Your task to perform on an android device: toggle improve location accuracy Image 0: 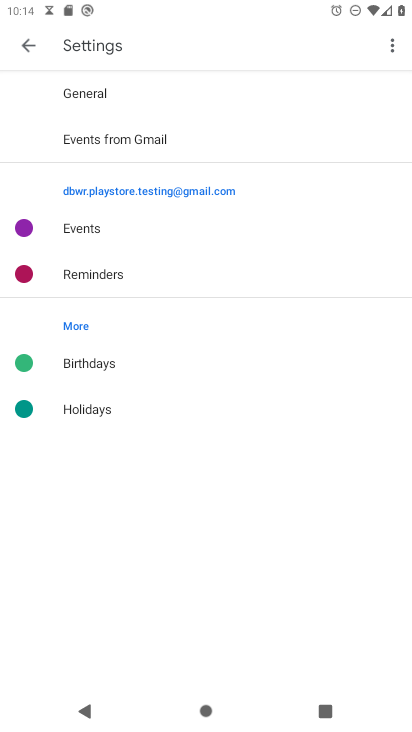
Step 0: press back button
Your task to perform on an android device: toggle improve location accuracy Image 1: 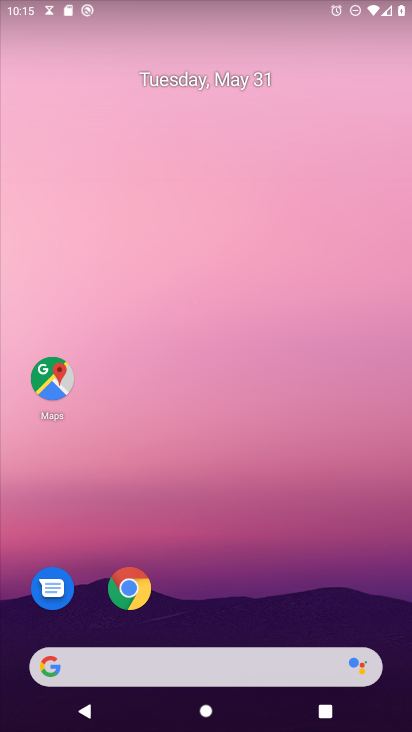
Step 1: drag from (277, 574) to (223, 64)
Your task to perform on an android device: toggle improve location accuracy Image 2: 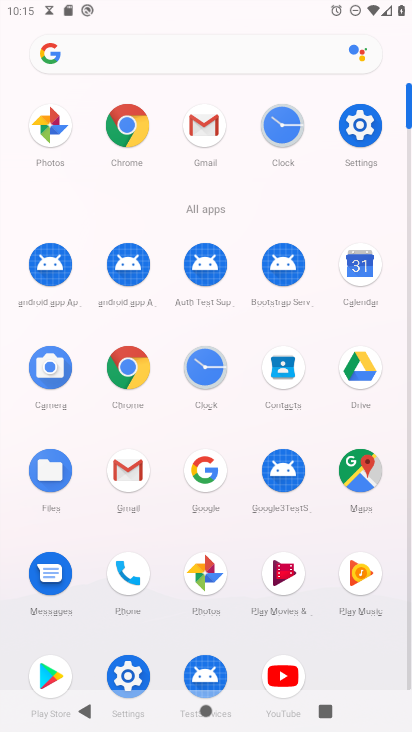
Step 2: click (357, 127)
Your task to perform on an android device: toggle improve location accuracy Image 3: 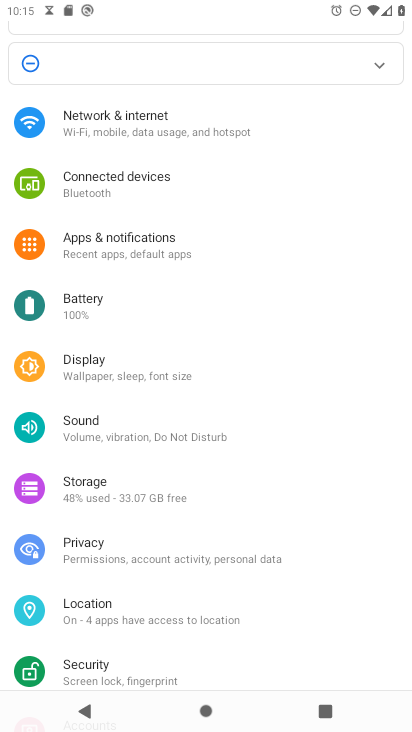
Step 3: click (88, 607)
Your task to perform on an android device: toggle improve location accuracy Image 4: 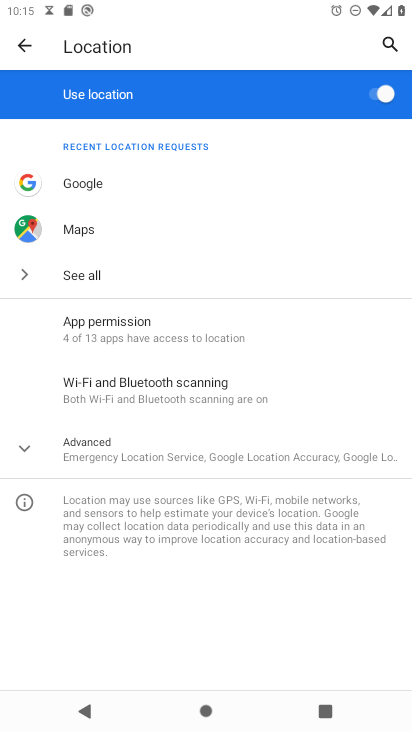
Step 4: click (135, 457)
Your task to perform on an android device: toggle improve location accuracy Image 5: 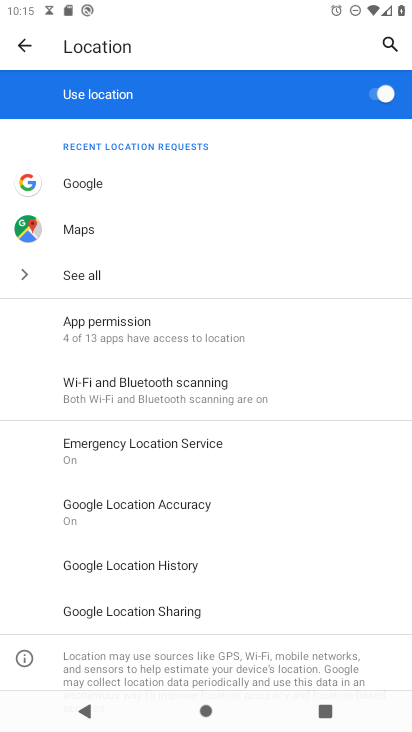
Step 5: click (151, 507)
Your task to perform on an android device: toggle improve location accuracy Image 6: 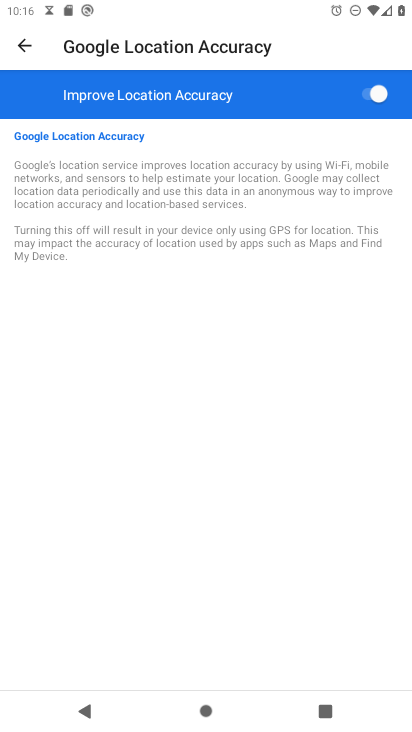
Step 6: click (365, 94)
Your task to perform on an android device: toggle improve location accuracy Image 7: 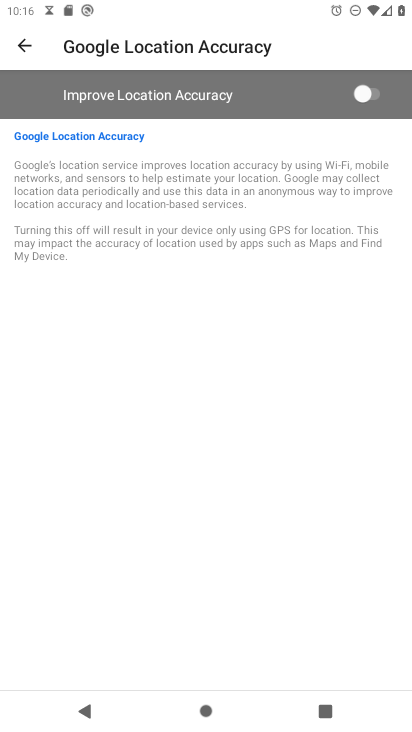
Step 7: task complete